Your task to perform on an android device: make emails show in primary in the gmail app Image 0: 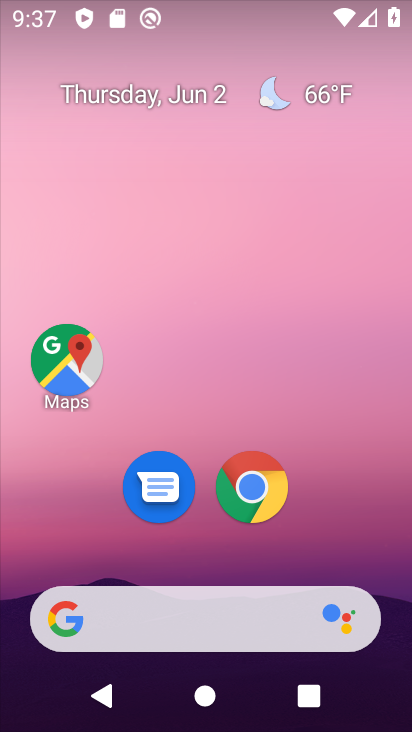
Step 0: drag from (241, 725) to (241, 72)
Your task to perform on an android device: make emails show in primary in the gmail app Image 1: 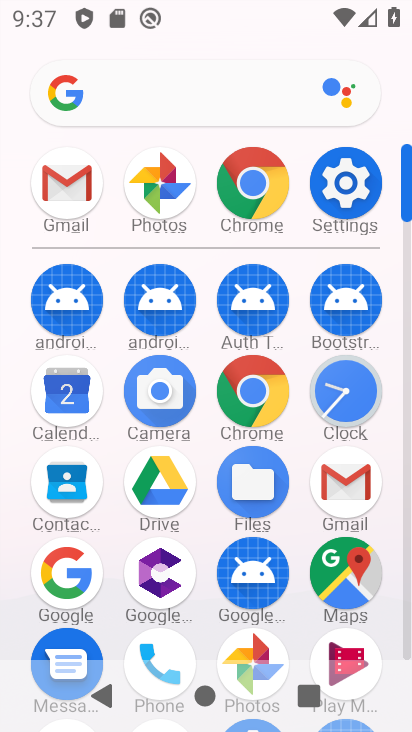
Step 1: click (351, 469)
Your task to perform on an android device: make emails show in primary in the gmail app Image 2: 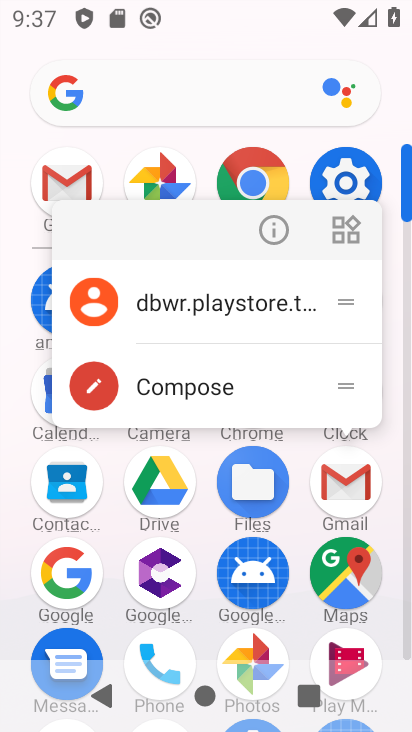
Step 2: click (339, 480)
Your task to perform on an android device: make emails show in primary in the gmail app Image 3: 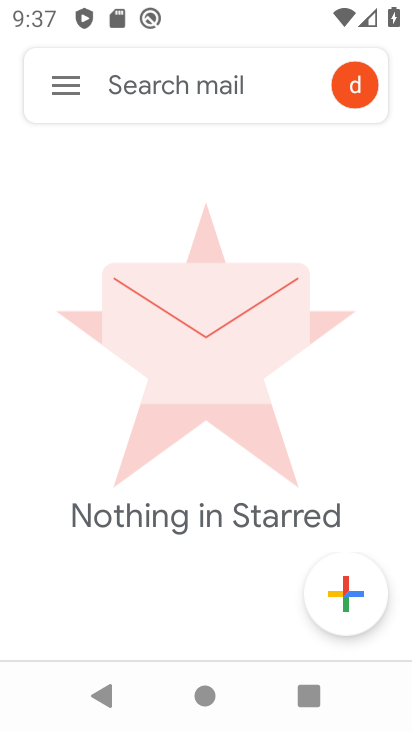
Step 3: click (68, 85)
Your task to perform on an android device: make emails show in primary in the gmail app Image 4: 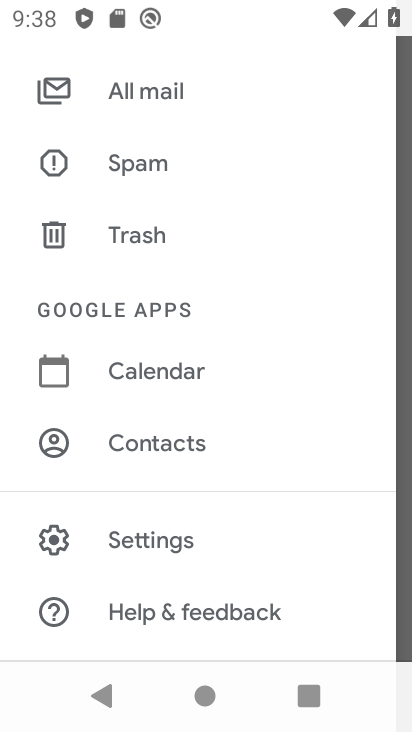
Step 4: drag from (190, 130) to (198, 471)
Your task to perform on an android device: make emails show in primary in the gmail app Image 5: 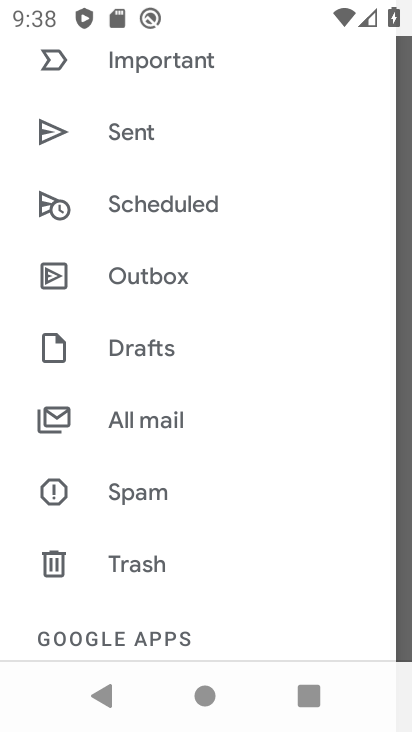
Step 5: drag from (154, 597) to (153, 118)
Your task to perform on an android device: make emails show in primary in the gmail app Image 6: 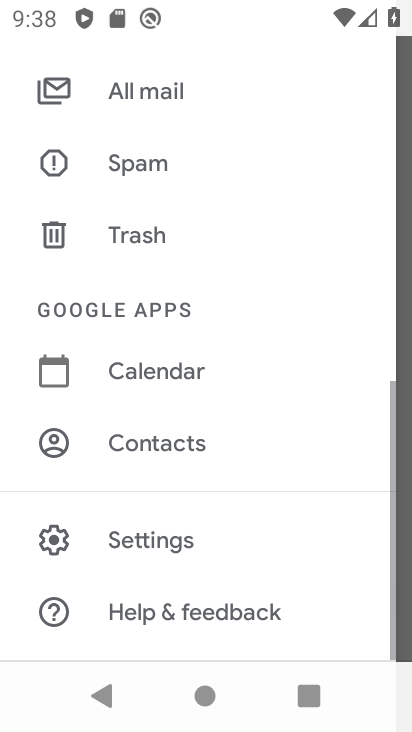
Step 6: click (148, 531)
Your task to perform on an android device: make emails show in primary in the gmail app Image 7: 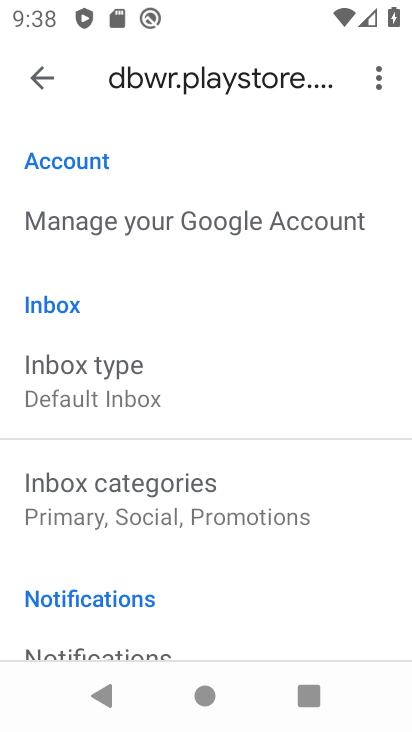
Step 7: click (87, 515)
Your task to perform on an android device: make emails show in primary in the gmail app Image 8: 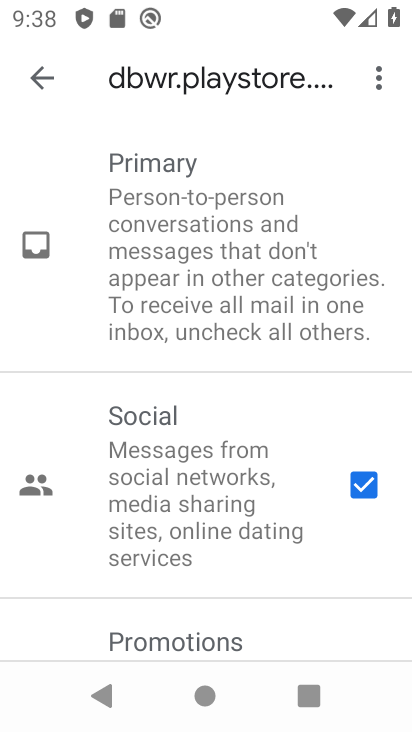
Step 8: click (369, 480)
Your task to perform on an android device: make emails show in primary in the gmail app Image 9: 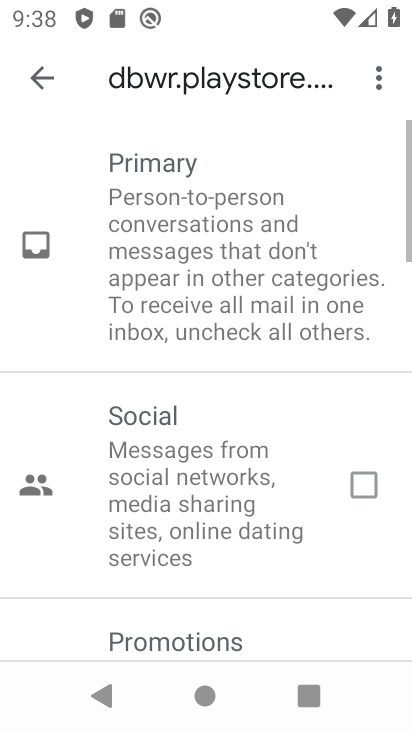
Step 9: drag from (301, 638) to (301, 195)
Your task to perform on an android device: make emails show in primary in the gmail app Image 10: 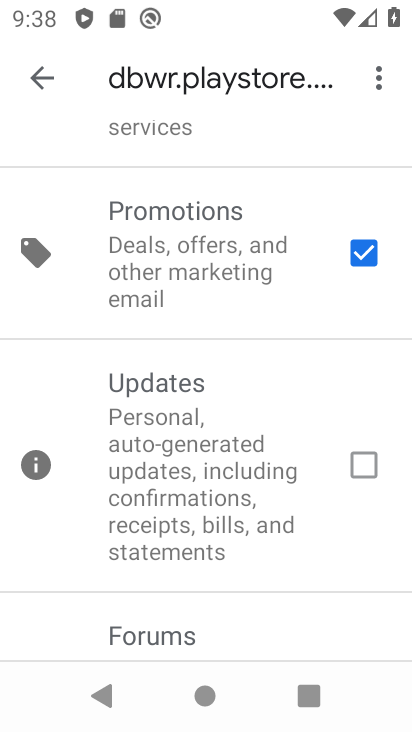
Step 10: click (363, 251)
Your task to perform on an android device: make emails show in primary in the gmail app Image 11: 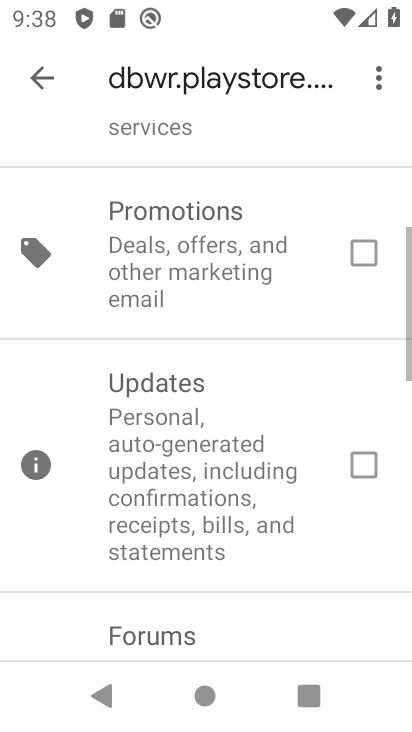
Step 11: drag from (274, 625) to (278, 306)
Your task to perform on an android device: make emails show in primary in the gmail app Image 12: 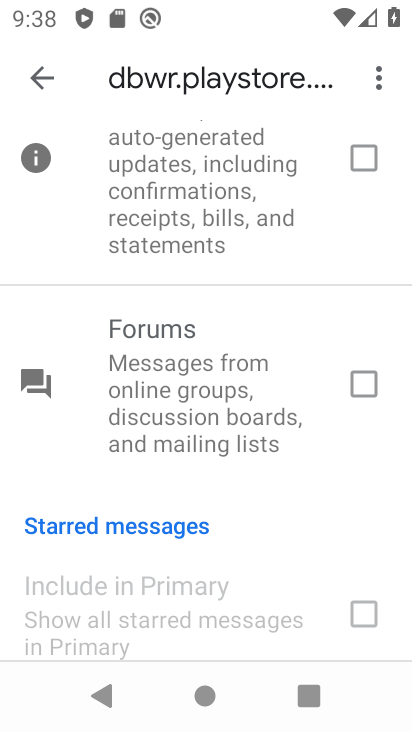
Step 12: click (40, 77)
Your task to perform on an android device: make emails show in primary in the gmail app Image 13: 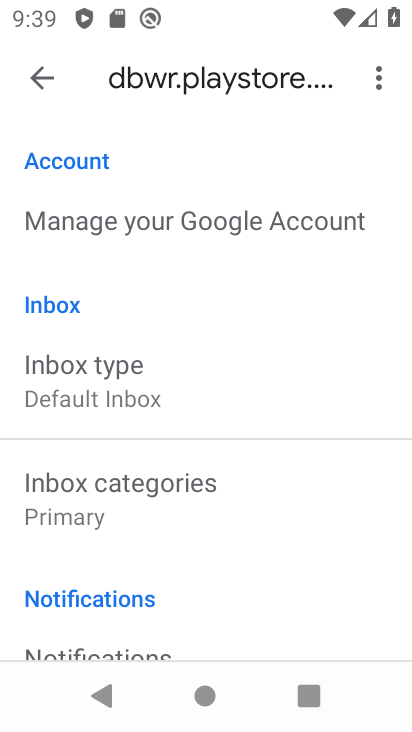
Step 13: task complete